Your task to perform on an android device: turn vacation reply on in the gmail app Image 0: 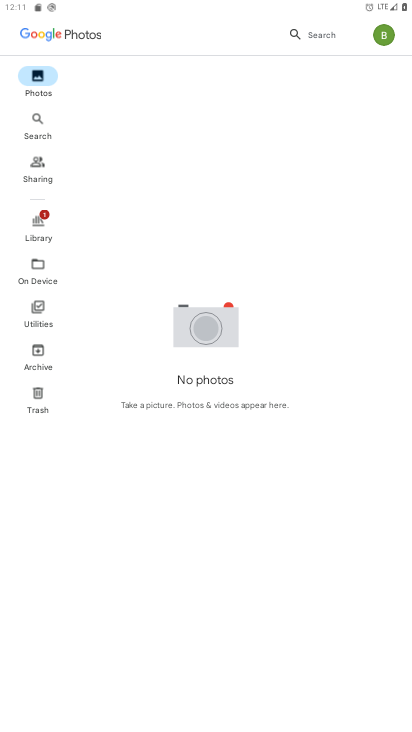
Step 0: press home button
Your task to perform on an android device: turn vacation reply on in the gmail app Image 1: 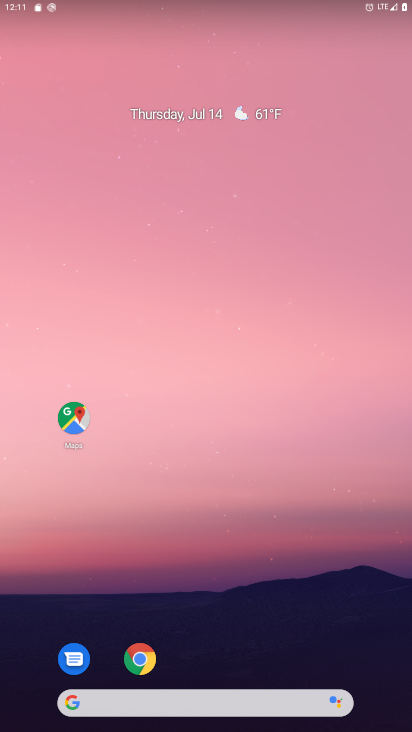
Step 1: drag from (220, 668) to (215, 179)
Your task to perform on an android device: turn vacation reply on in the gmail app Image 2: 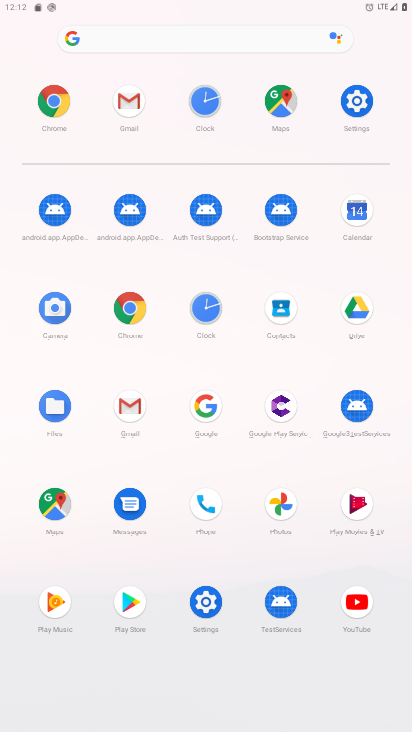
Step 2: click (138, 403)
Your task to perform on an android device: turn vacation reply on in the gmail app Image 3: 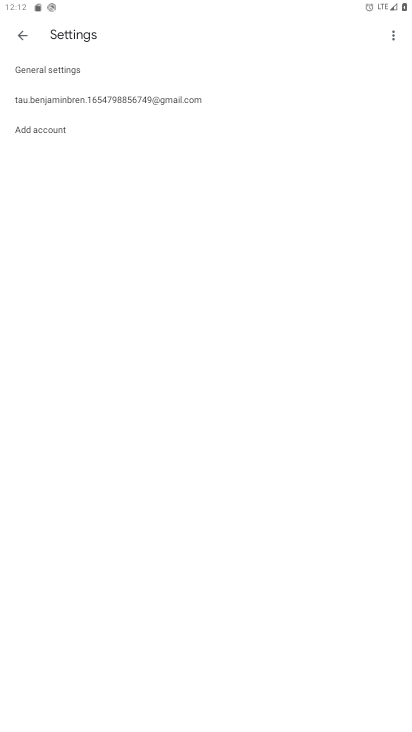
Step 3: click (129, 102)
Your task to perform on an android device: turn vacation reply on in the gmail app Image 4: 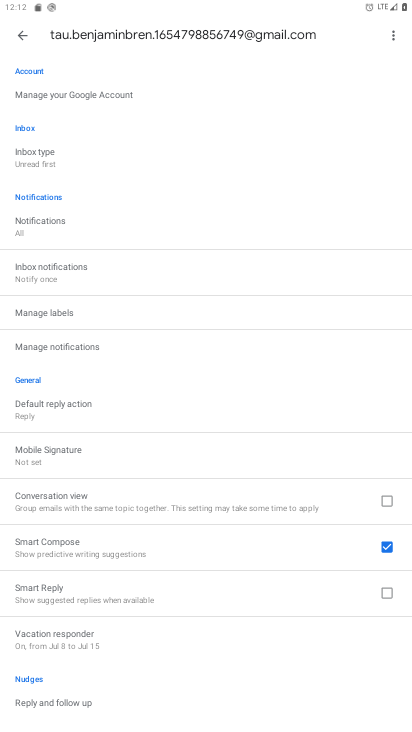
Step 4: click (105, 635)
Your task to perform on an android device: turn vacation reply on in the gmail app Image 5: 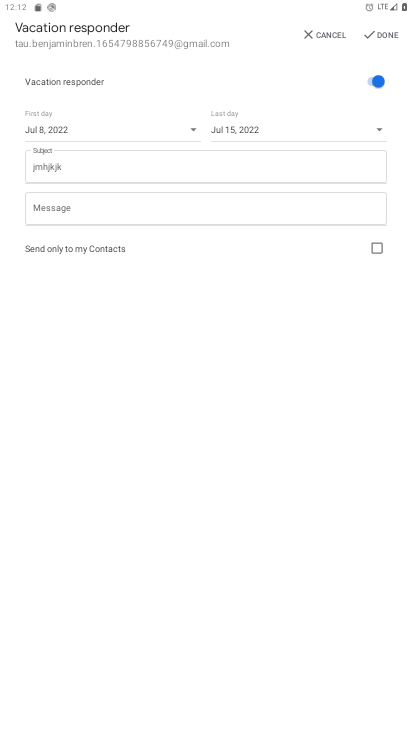
Step 5: task complete